Your task to perform on an android device: turn pop-ups on in chrome Image 0: 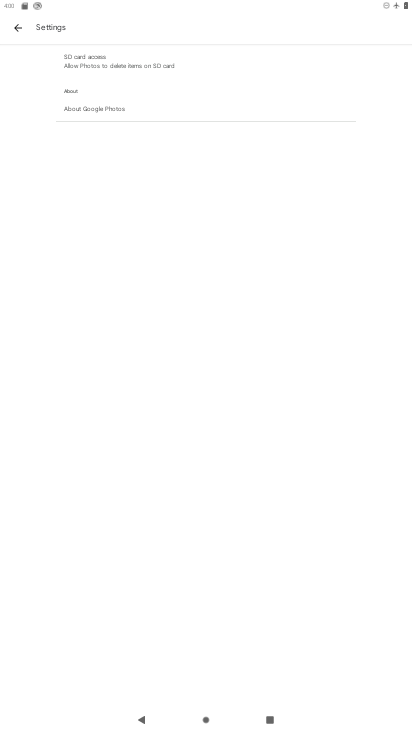
Step 0: press home button
Your task to perform on an android device: turn pop-ups on in chrome Image 1: 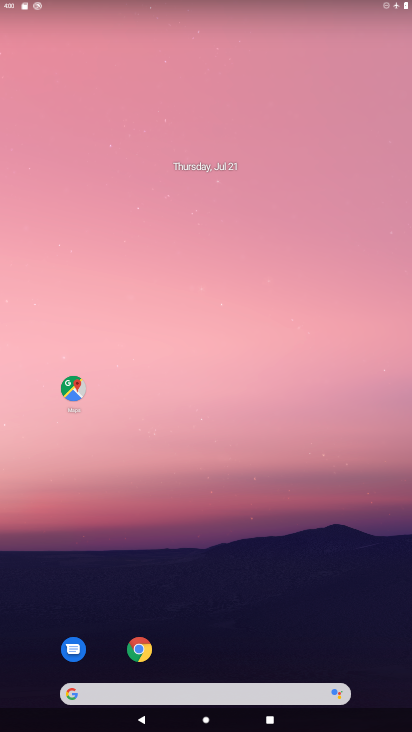
Step 1: drag from (215, 626) to (71, 72)
Your task to perform on an android device: turn pop-ups on in chrome Image 2: 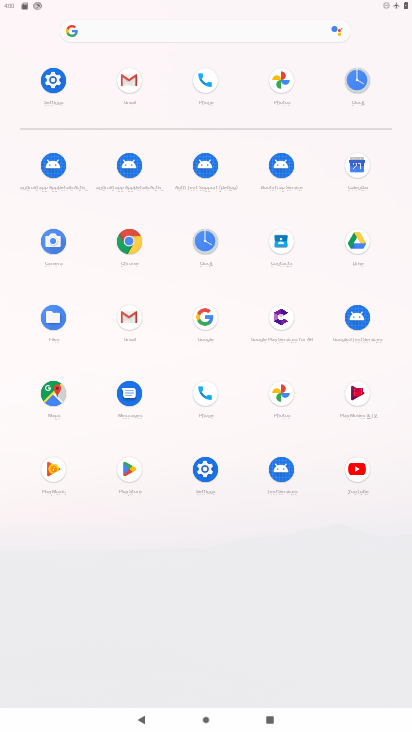
Step 2: click (129, 246)
Your task to perform on an android device: turn pop-ups on in chrome Image 3: 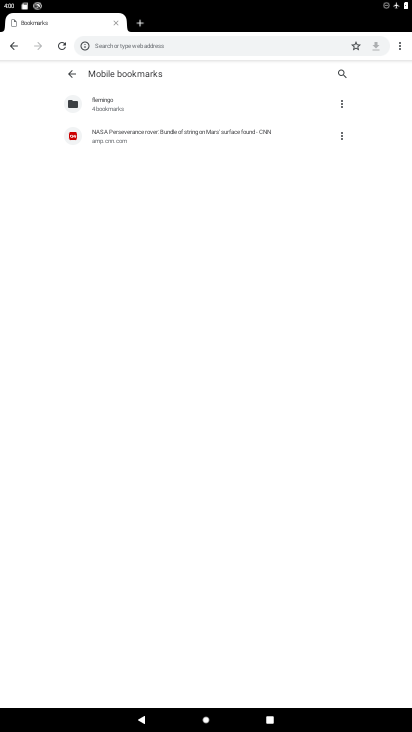
Step 3: press back button
Your task to perform on an android device: turn pop-ups on in chrome Image 4: 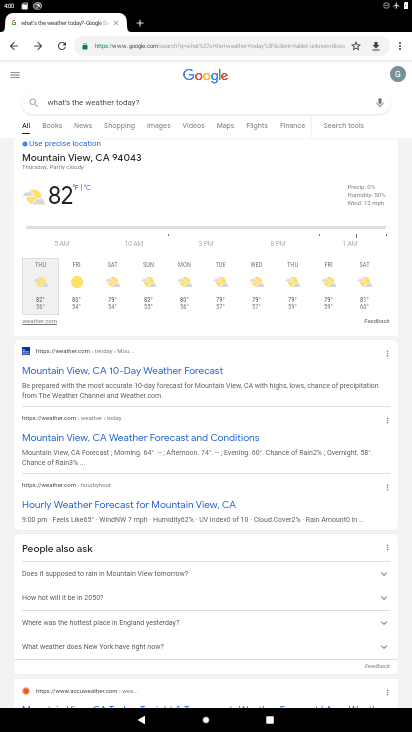
Step 4: click (401, 46)
Your task to perform on an android device: turn pop-ups on in chrome Image 5: 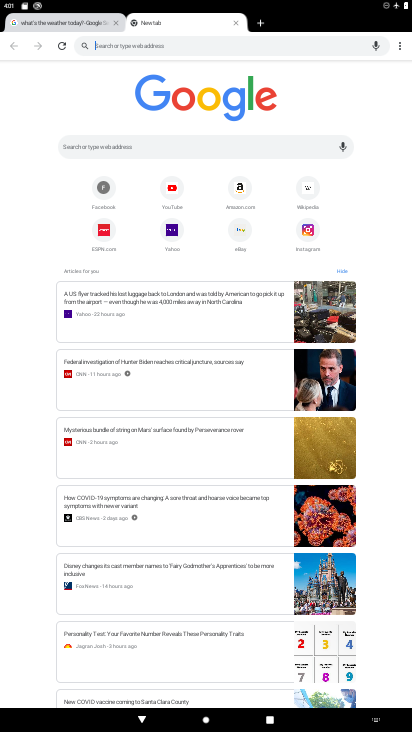
Step 5: click (398, 45)
Your task to perform on an android device: turn pop-ups on in chrome Image 6: 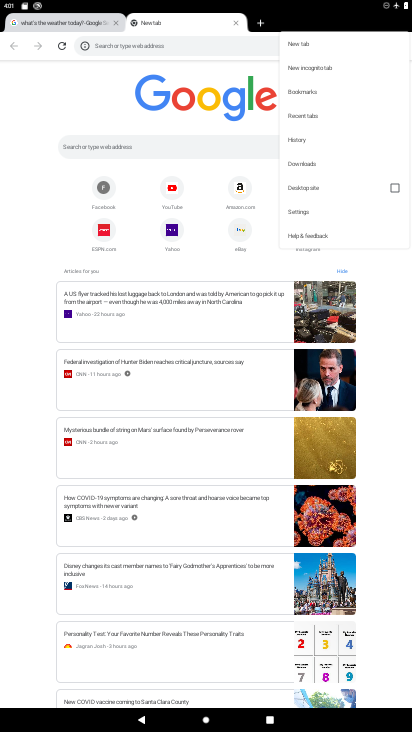
Step 6: click (306, 212)
Your task to perform on an android device: turn pop-ups on in chrome Image 7: 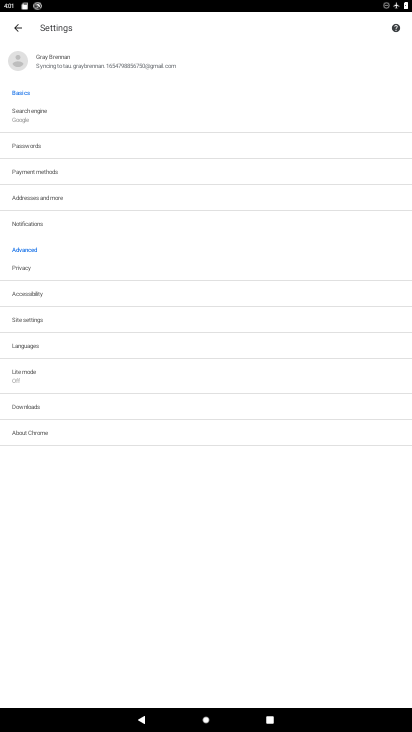
Step 7: click (30, 321)
Your task to perform on an android device: turn pop-ups on in chrome Image 8: 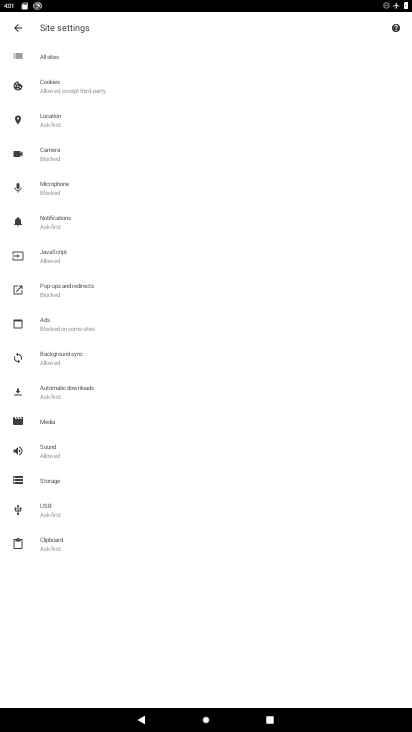
Step 8: click (64, 291)
Your task to perform on an android device: turn pop-ups on in chrome Image 9: 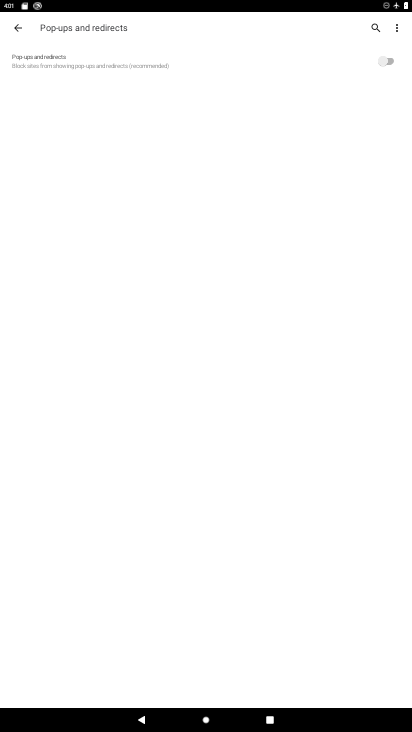
Step 9: click (381, 56)
Your task to perform on an android device: turn pop-ups on in chrome Image 10: 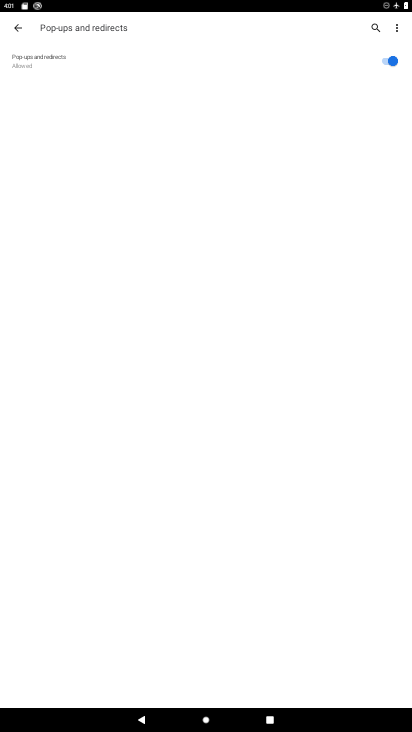
Step 10: task complete